Your task to perform on an android device: delete a single message in the gmail app Image 0: 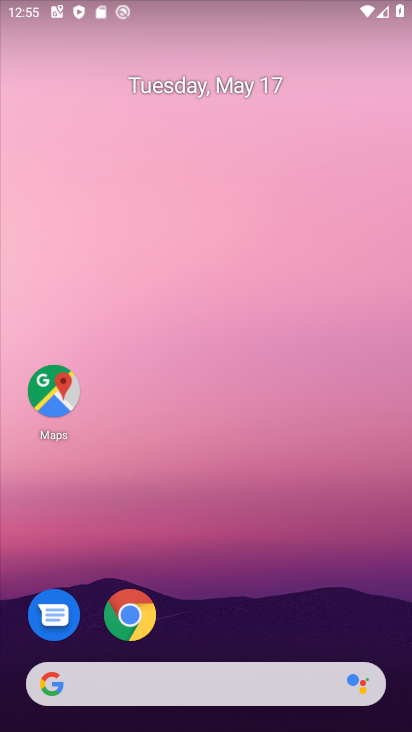
Step 0: drag from (265, 602) to (310, 135)
Your task to perform on an android device: delete a single message in the gmail app Image 1: 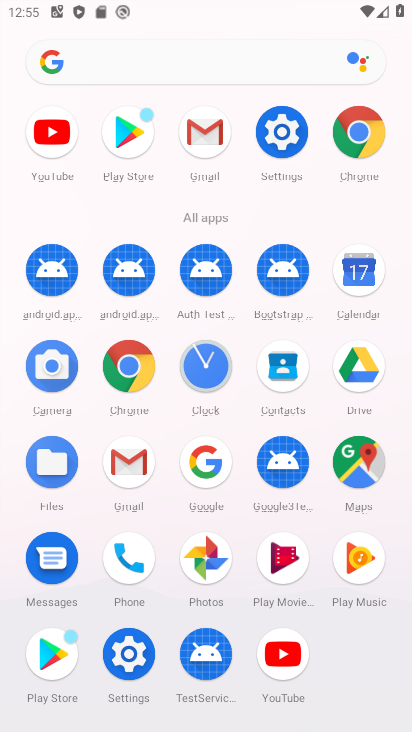
Step 1: drag from (238, 440) to (241, 304)
Your task to perform on an android device: delete a single message in the gmail app Image 2: 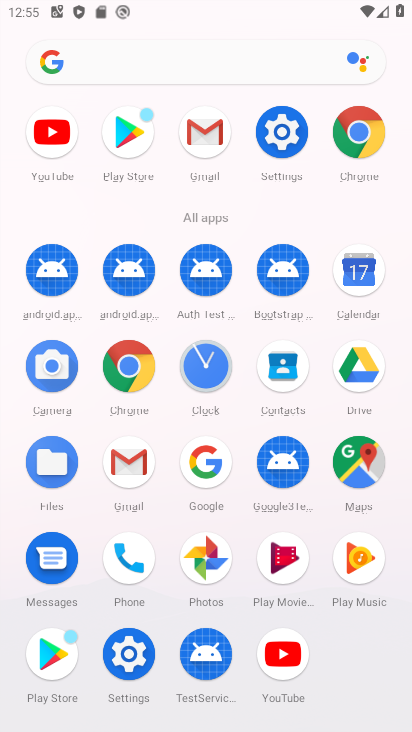
Step 2: click (205, 133)
Your task to perform on an android device: delete a single message in the gmail app Image 3: 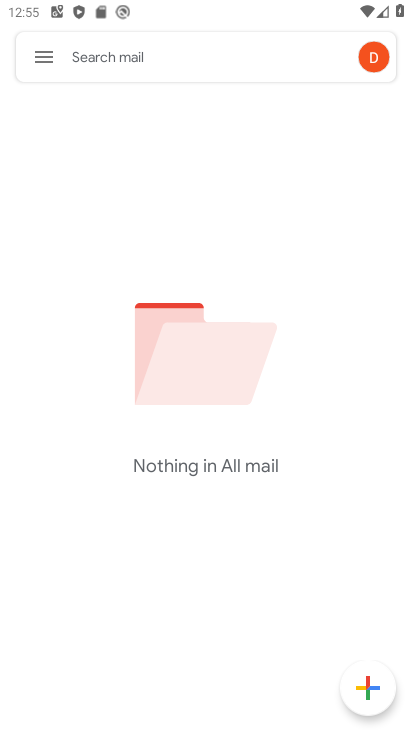
Step 3: click (40, 54)
Your task to perform on an android device: delete a single message in the gmail app Image 4: 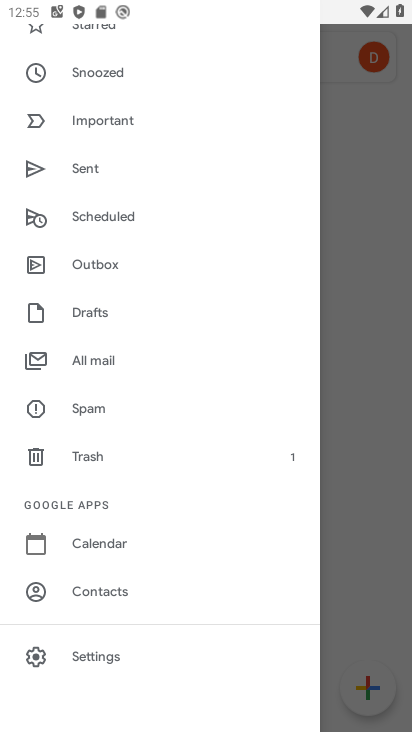
Step 4: drag from (117, 164) to (135, 272)
Your task to perform on an android device: delete a single message in the gmail app Image 5: 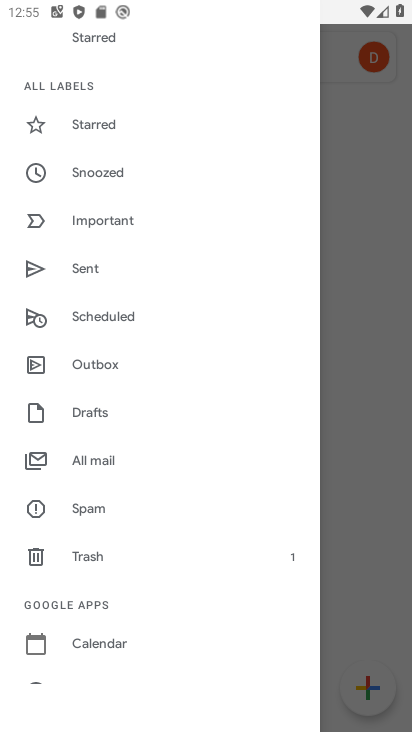
Step 5: drag from (160, 195) to (140, 288)
Your task to perform on an android device: delete a single message in the gmail app Image 6: 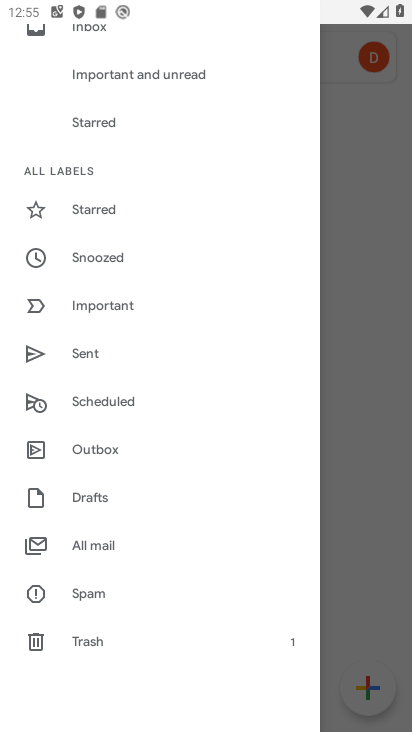
Step 6: drag from (104, 160) to (182, 387)
Your task to perform on an android device: delete a single message in the gmail app Image 7: 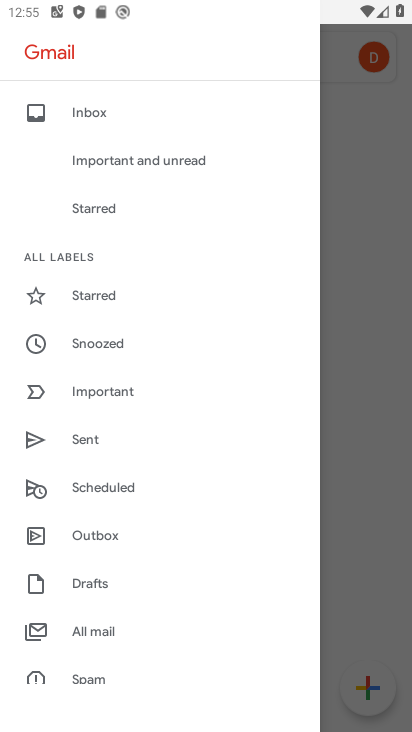
Step 7: drag from (126, 600) to (182, 415)
Your task to perform on an android device: delete a single message in the gmail app Image 8: 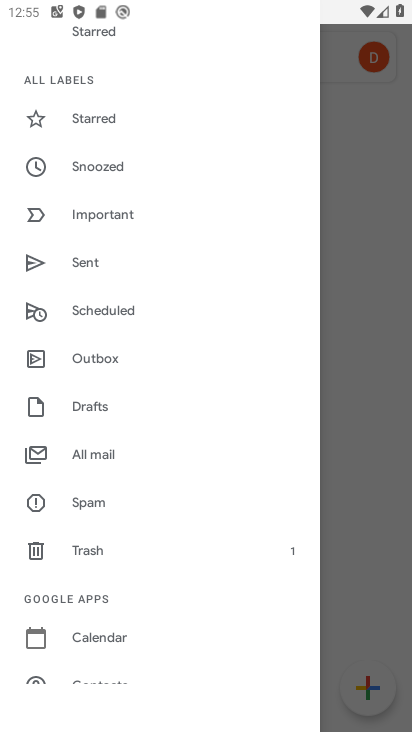
Step 8: drag from (177, 288) to (182, 543)
Your task to perform on an android device: delete a single message in the gmail app Image 9: 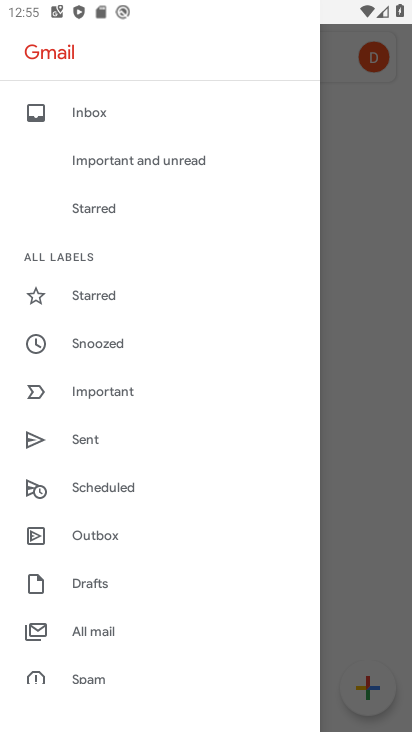
Step 9: click (72, 105)
Your task to perform on an android device: delete a single message in the gmail app Image 10: 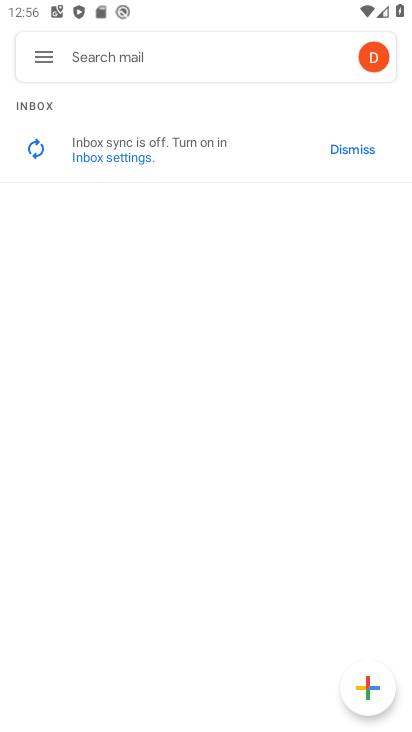
Step 10: task complete